Your task to perform on an android device: Check the news Image 0: 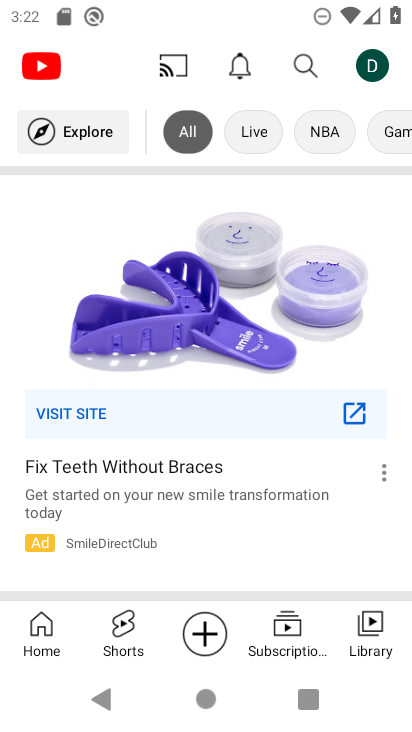
Step 0: press home button
Your task to perform on an android device: Check the news Image 1: 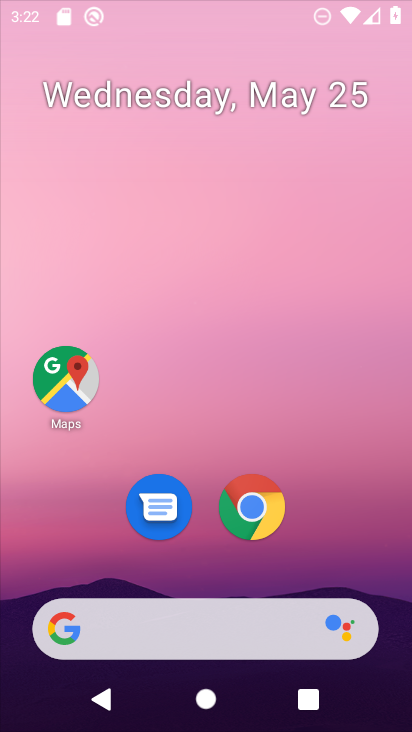
Step 1: drag from (206, 708) to (231, 289)
Your task to perform on an android device: Check the news Image 2: 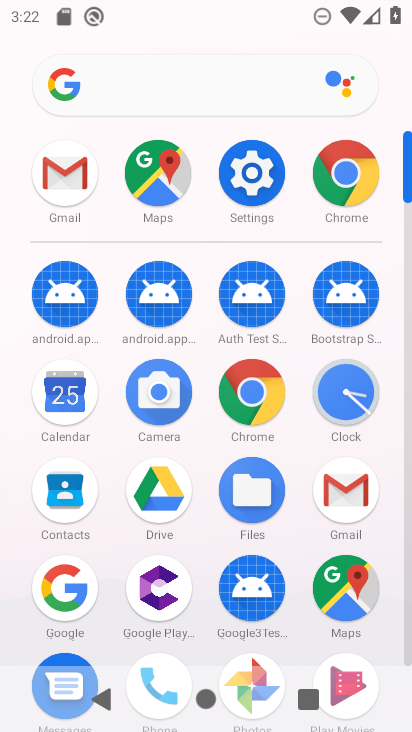
Step 2: click (80, 586)
Your task to perform on an android device: Check the news Image 3: 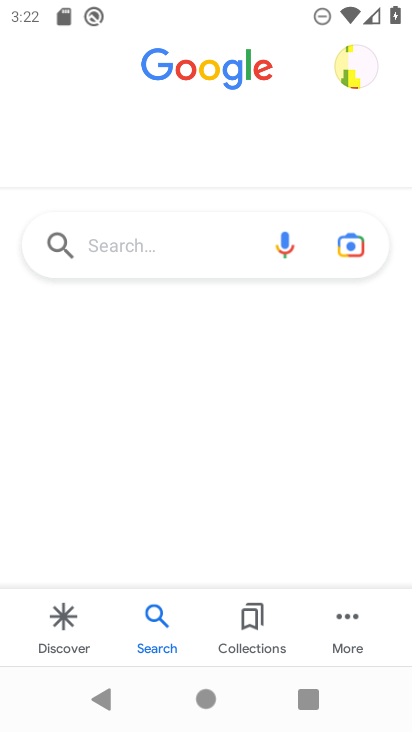
Step 3: click (180, 248)
Your task to perform on an android device: Check the news Image 4: 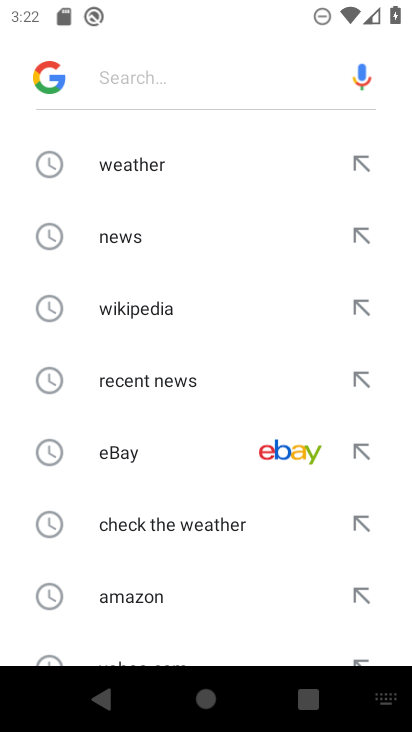
Step 4: click (177, 218)
Your task to perform on an android device: Check the news Image 5: 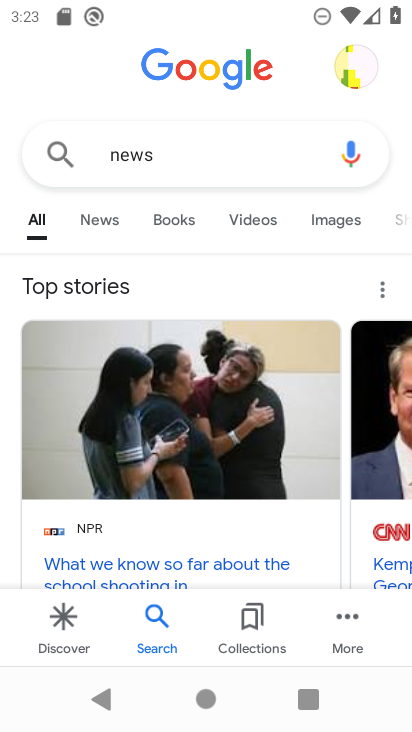
Step 5: click (106, 225)
Your task to perform on an android device: Check the news Image 6: 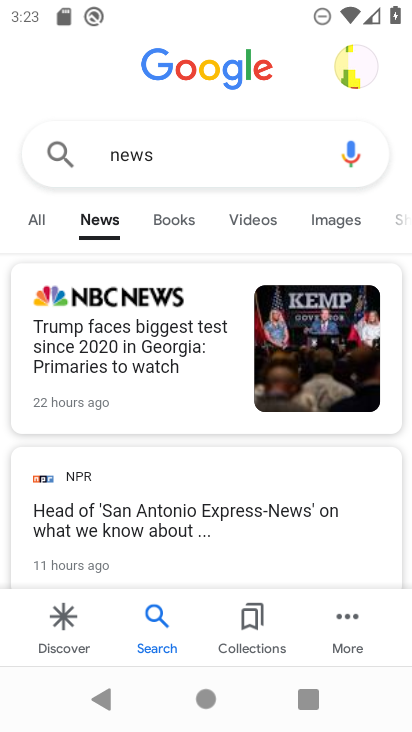
Step 6: task complete